Your task to perform on an android device: turn on javascript in the chrome app Image 0: 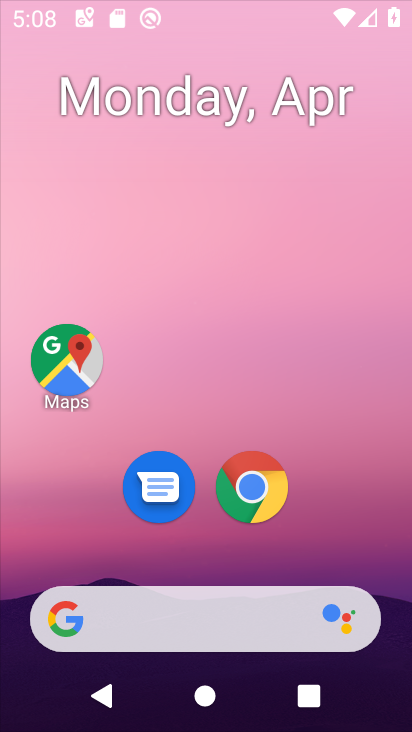
Step 0: click (279, 97)
Your task to perform on an android device: turn on javascript in the chrome app Image 1: 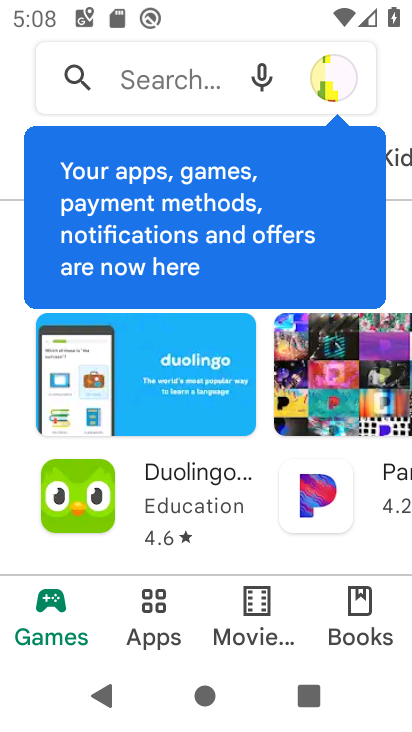
Step 1: press home button
Your task to perform on an android device: turn on javascript in the chrome app Image 2: 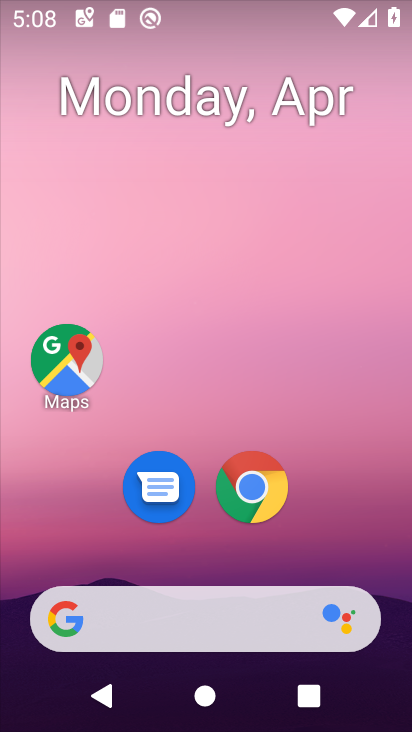
Step 2: click (267, 503)
Your task to perform on an android device: turn on javascript in the chrome app Image 3: 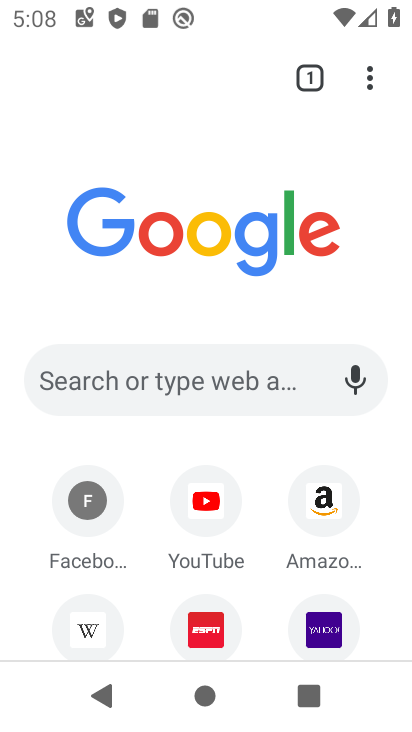
Step 3: click (372, 91)
Your task to perform on an android device: turn on javascript in the chrome app Image 4: 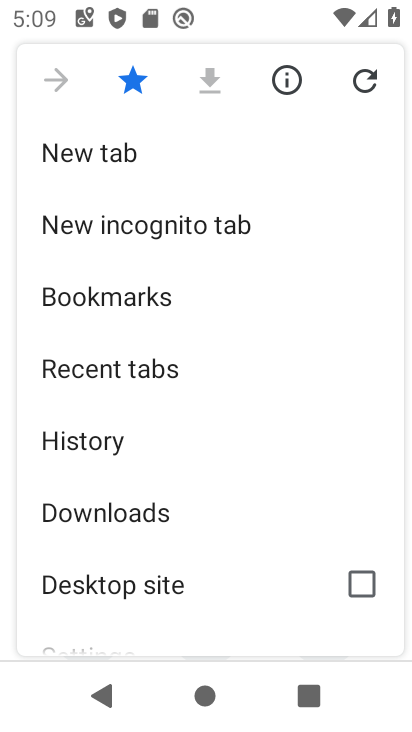
Step 4: drag from (233, 577) to (213, 201)
Your task to perform on an android device: turn on javascript in the chrome app Image 5: 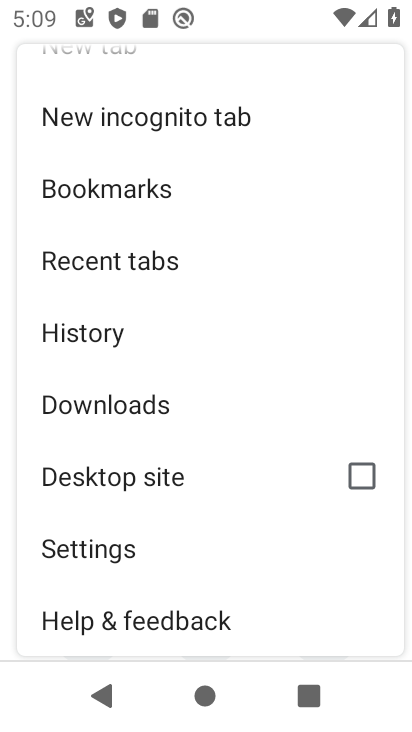
Step 5: click (220, 555)
Your task to perform on an android device: turn on javascript in the chrome app Image 6: 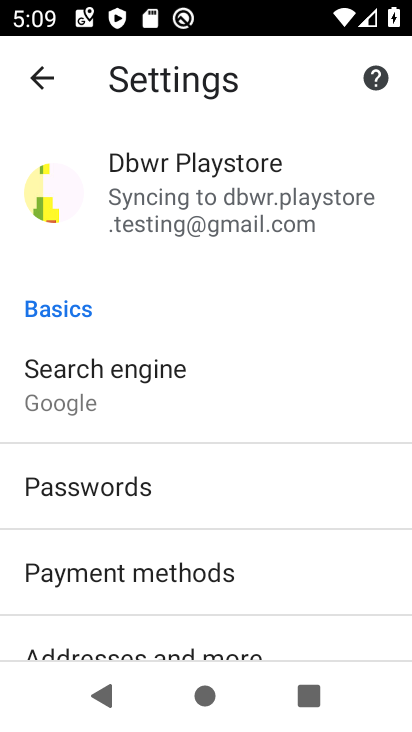
Step 6: drag from (259, 610) to (232, 183)
Your task to perform on an android device: turn on javascript in the chrome app Image 7: 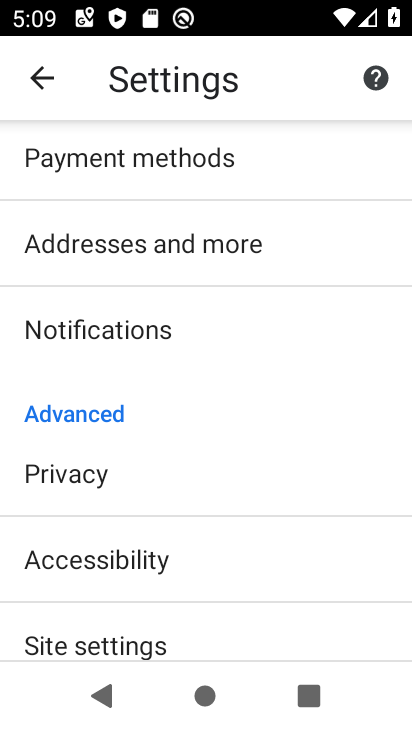
Step 7: click (281, 624)
Your task to perform on an android device: turn on javascript in the chrome app Image 8: 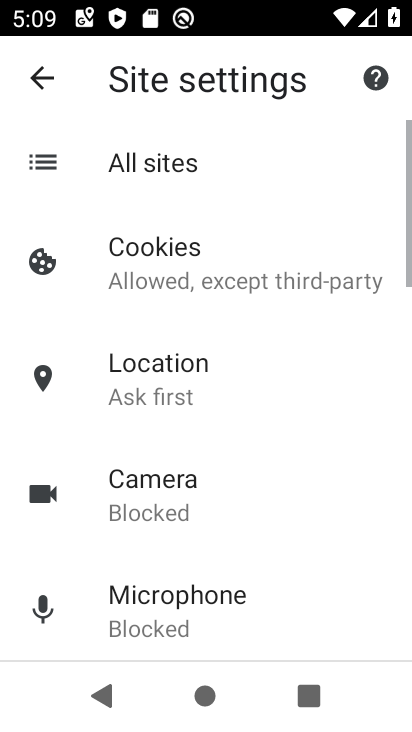
Step 8: drag from (281, 624) to (259, 294)
Your task to perform on an android device: turn on javascript in the chrome app Image 9: 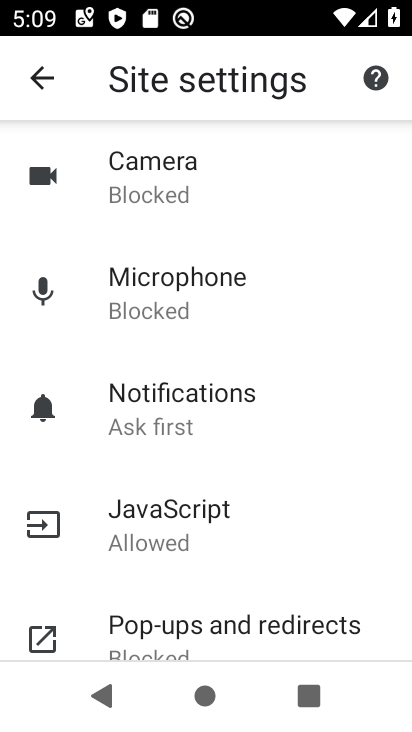
Step 9: click (256, 559)
Your task to perform on an android device: turn on javascript in the chrome app Image 10: 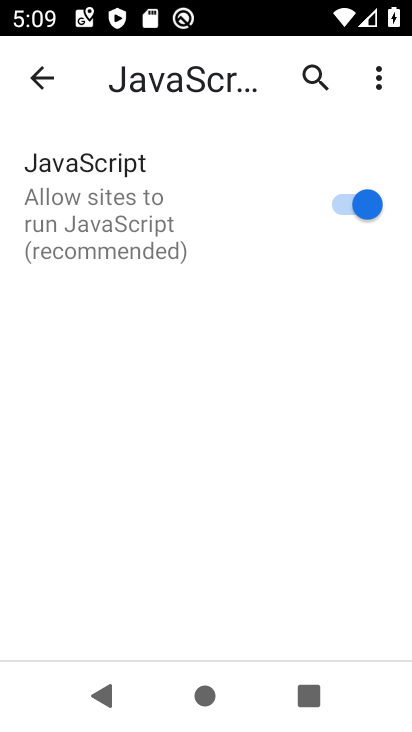
Step 10: task complete